Your task to perform on an android device: See recent photos Image 0: 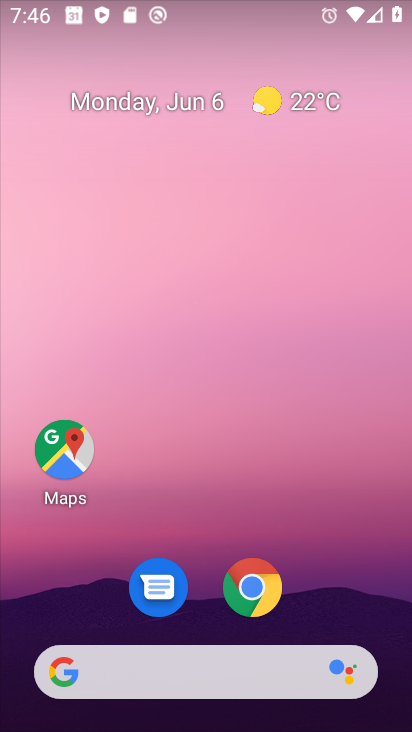
Step 0: drag from (288, 618) to (184, 178)
Your task to perform on an android device: See recent photos Image 1: 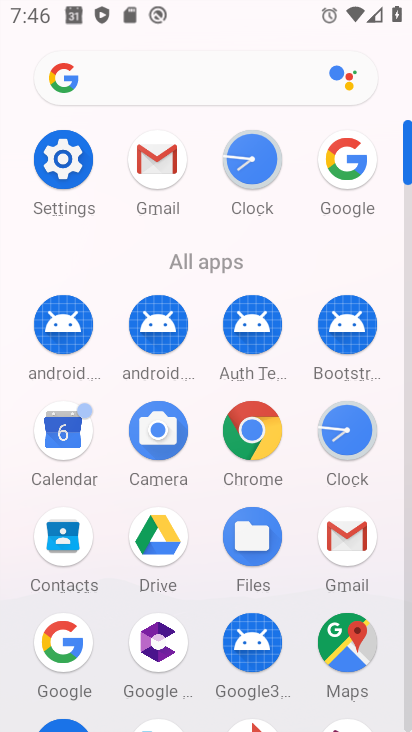
Step 1: drag from (253, 549) to (227, 209)
Your task to perform on an android device: See recent photos Image 2: 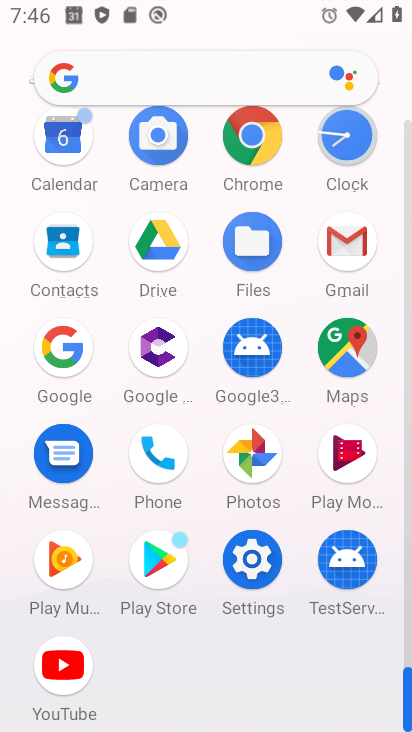
Step 2: click (247, 450)
Your task to perform on an android device: See recent photos Image 3: 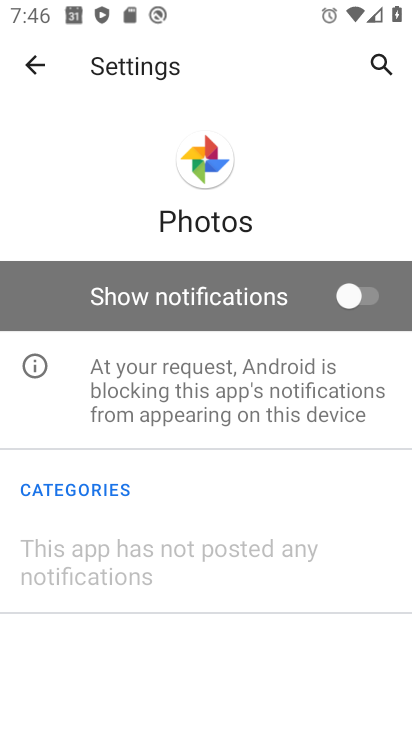
Step 3: task complete